Your task to perform on an android device: Check the news Image 0: 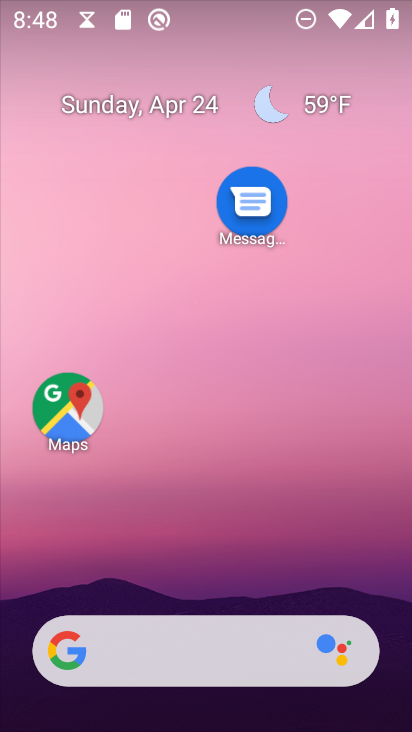
Step 0: drag from (41, 329) to (403, 428)
Your task to perform on an android device: Check the news Image 1: 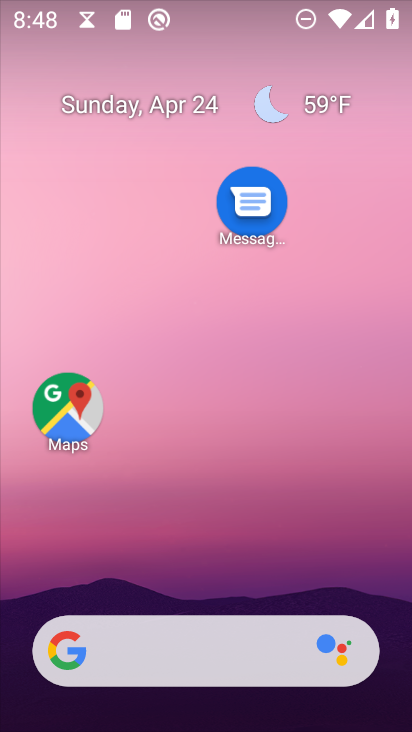
Step 1: task complete